Your task to perform on an android device: change alarm snooze length Image 0: 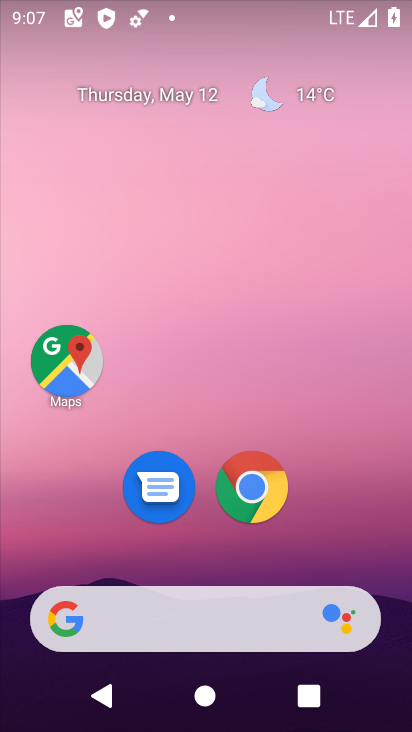
Step 0: drag from (18, 636) to (305, 115)
Your task to perform on an android device: change alarm snooze length Image 1: 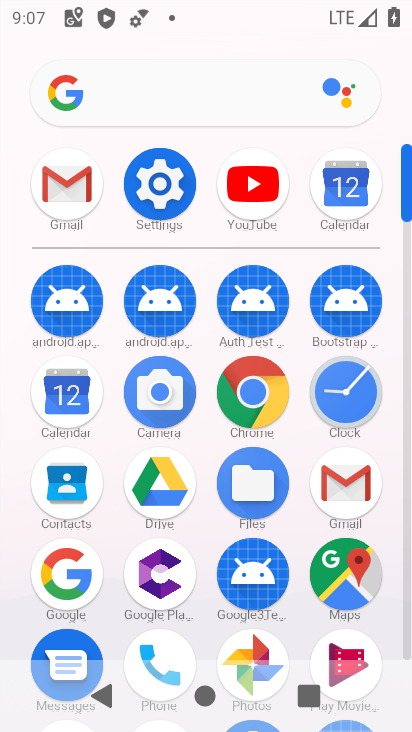
Step 1: click (360, 396)
Your task to perform on an android device: change alarm snooze length Image 2: 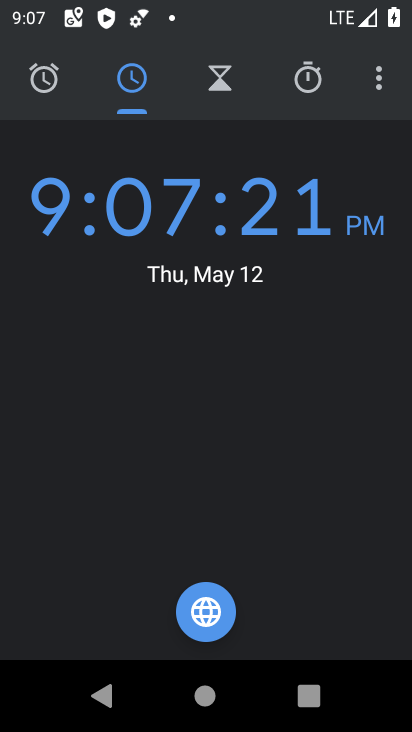
Step 2: click (384, 87)
Your task to perform on an android device: change alarm snooze length Image 3: 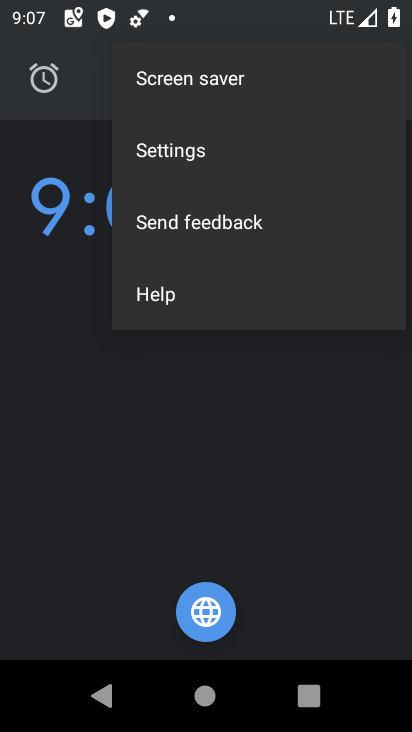
Step 3: click (222, 144)
Your task to perform on an android device: change alarm snooze length Image 4: 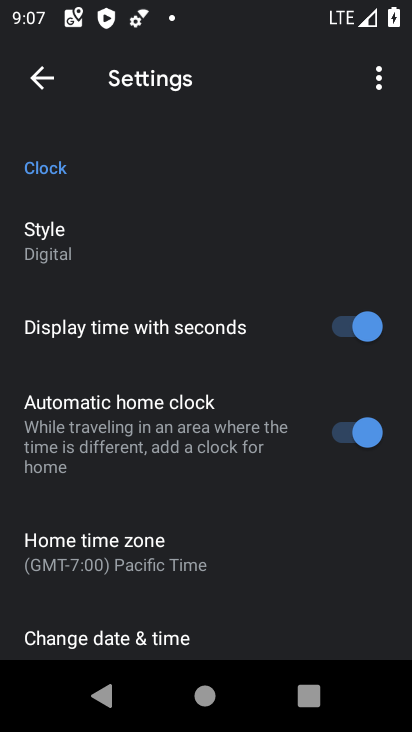
Step 4: drag from (0, 549) to (333, 7)
Your task to perform on an android device: change alarm snooze length Image 5: 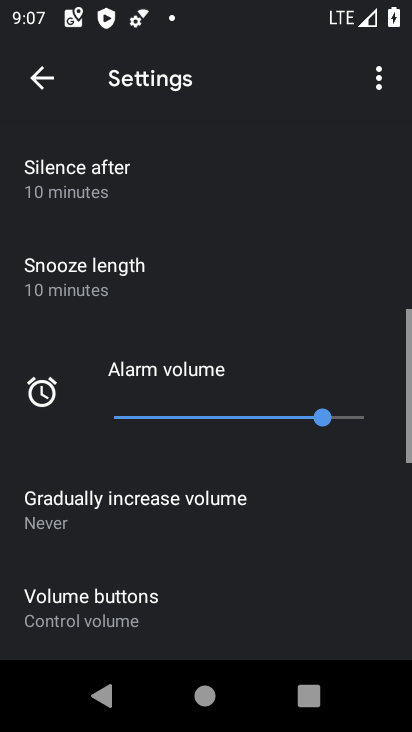
Step 5: drag from (48, 630) to (210, 165)
Your task to perform on an android device: change alarm snooze length Image 6: 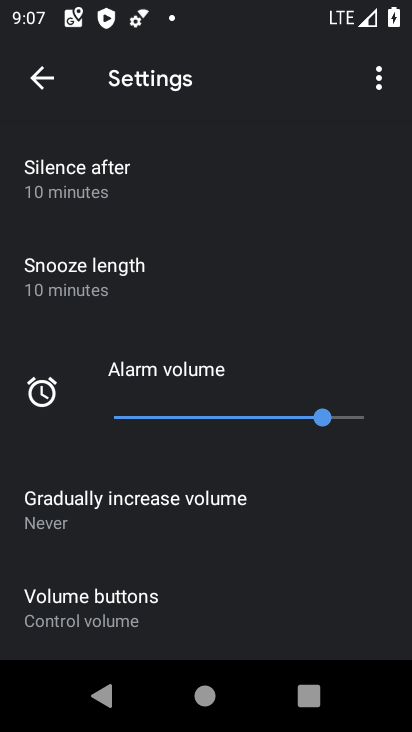
Step 6: click (113, 281)
Your task to perform on an android device: change alarm snooze length Image 7: 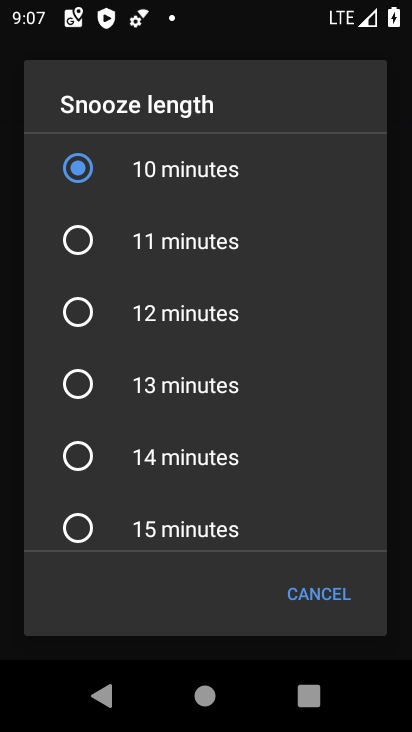
Step 7: click (90, 256)
Your task to perform on an android device: change alarm snooze length Image 8: 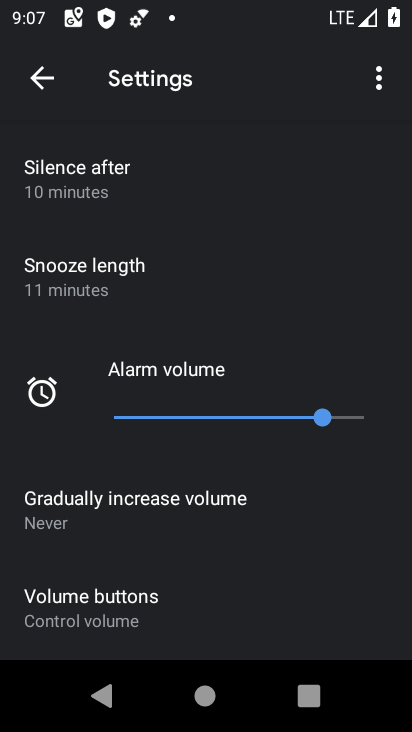
Step 8: task complete